Your task to perform on an android device: Go to CNN.com Image 0: 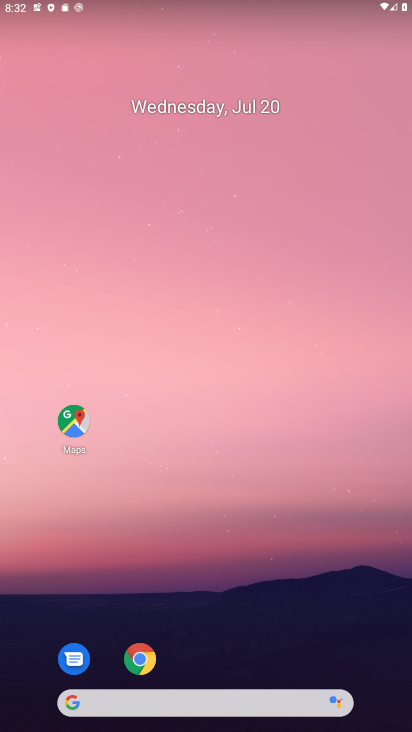
Step 0: drag from (272, 584) to (339, 87)
Your task to perform on an android device: Go to CNN.com Image 1: 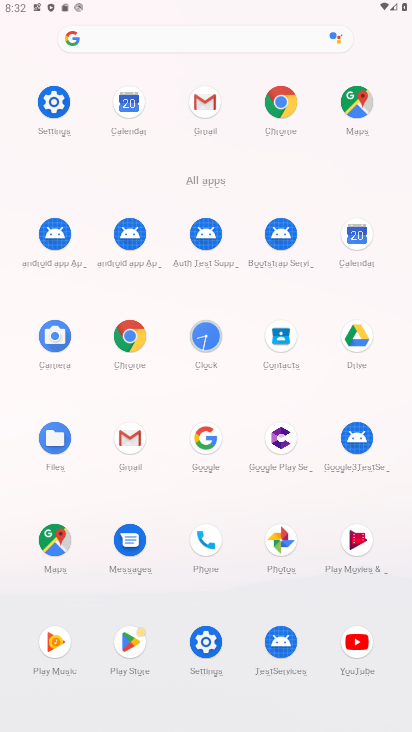
Step 1: click (127, 344)
Your task to perform on an android device: Go to CNN.com Image 2: 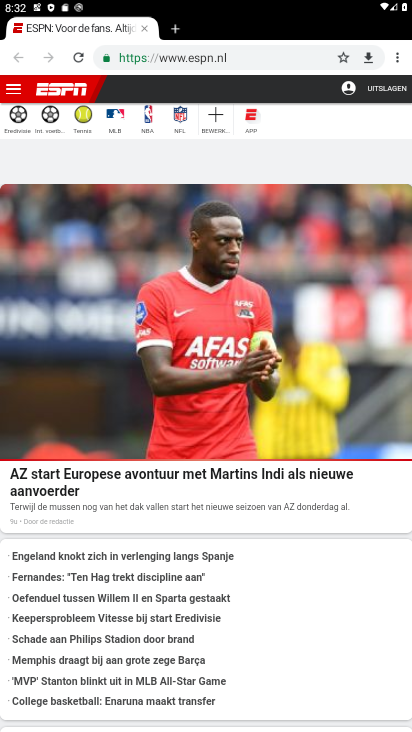
Step 2: click (227, 53)
Your task to perform on an android device: Go to CNN.com Image 3: 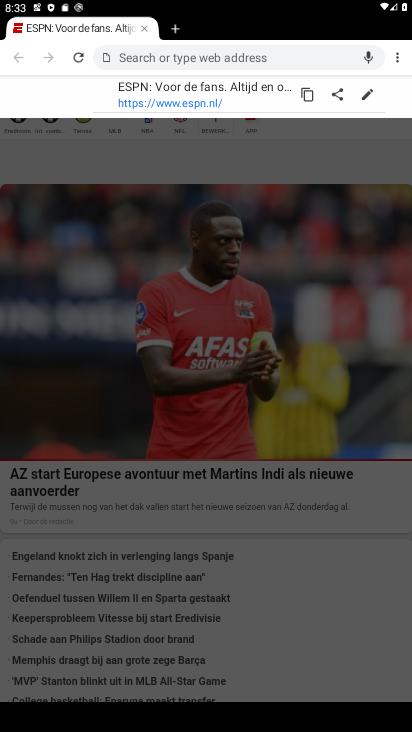
Step 3: type "CNN.com"
Your task to perform on an android device: Go to CNN.com Image 4: 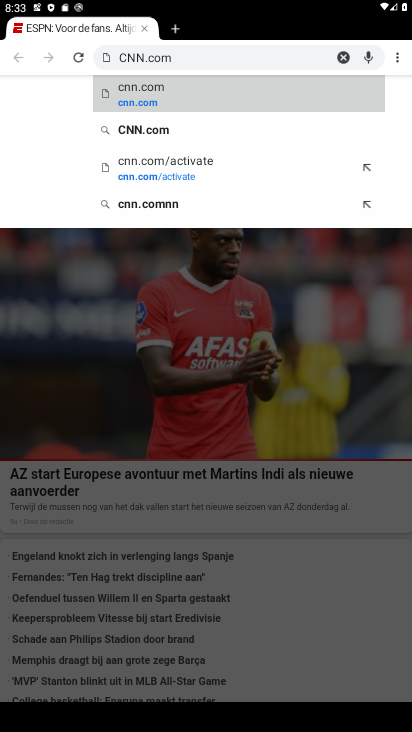
Step 4: click (149, 98)
Your task to perform on an android device: Go to CNN.com Image 5: 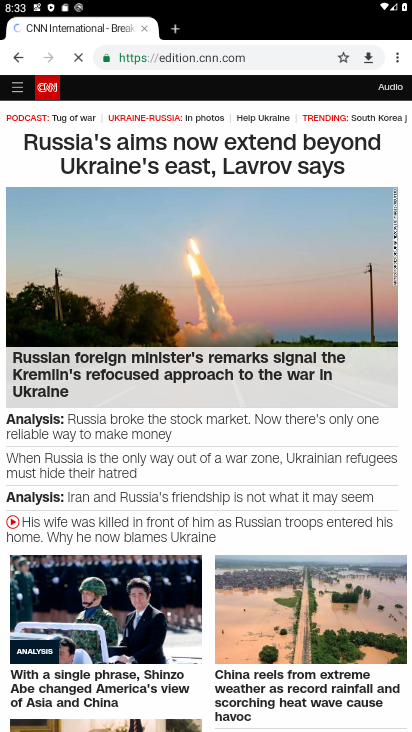
Step 5: task complete